Your task to perform on an android device: delete browsing data in the chrome app Image 0: 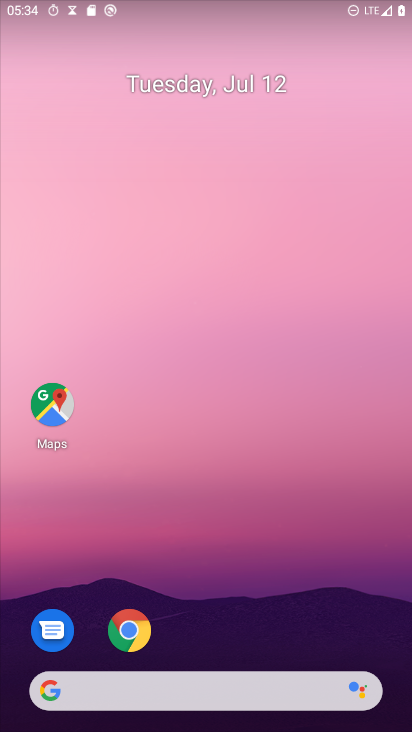
Step 0: drag from (319, 699) to (294, 31)
Your task to perform on an android device: delete browsing data in the chrome app Image 1: 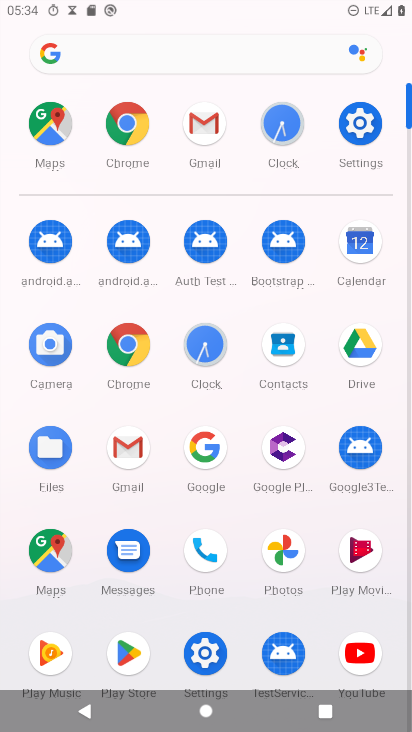
Step 1: click (127, 347)
Your task to perform on an android device: delete browsing data in the chrome app Image 2: 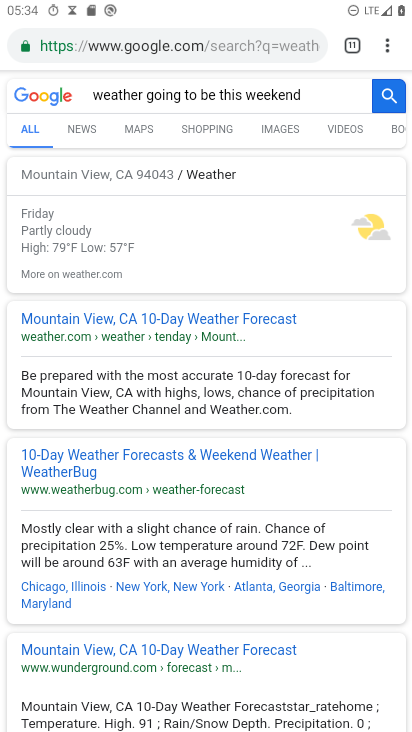
Step 2: drag from (391, 43) to (283, 503)
Your task to perform on an android device: delete browsing data in the chrome app Image 3: 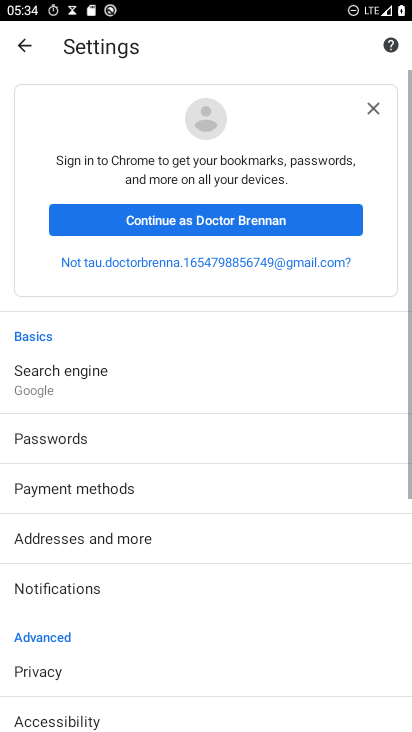
Step 3: drag from (351, 486) to (318, 93)
Your task to perform on an android device: delete browsing data in the chrome app Image 4: 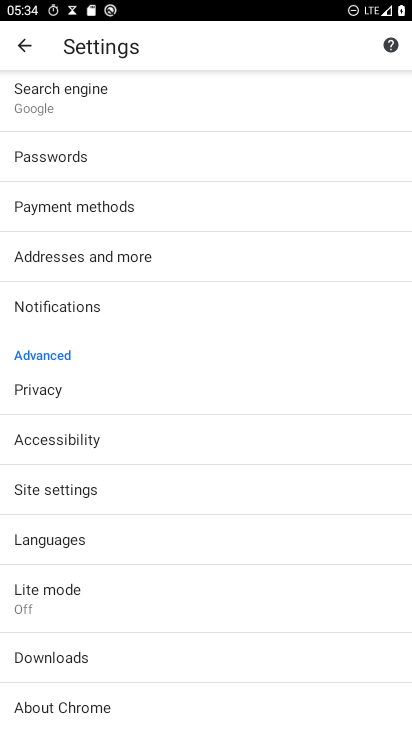
Step 4: click (77, 365)
Your task to perform on an android device: delete browsing data in the chrome app Image 5: 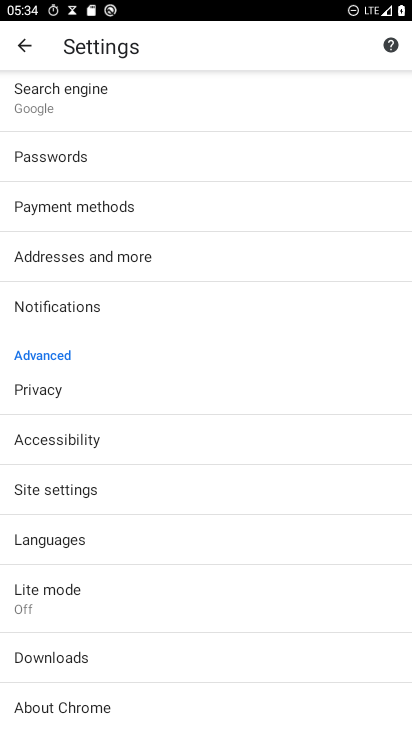
Step 5: click (58, 403)
Your task to perform on an android device: delete browsing data in the chrome app Image 6: 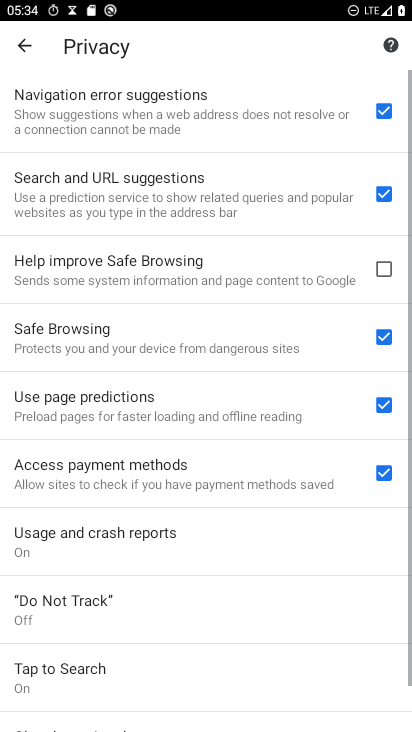
Step 6: drag from (257, 689) to (243, 143)
Your task to perform on an android device: delete browsing data in the chrome app Image 7: 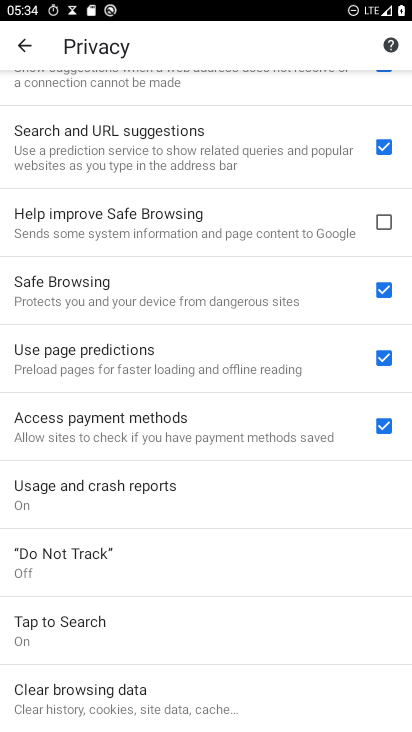
Step 7: click (83, 683)
Your task to perform on an android device: delete browsing data in the chrome app Image 8: 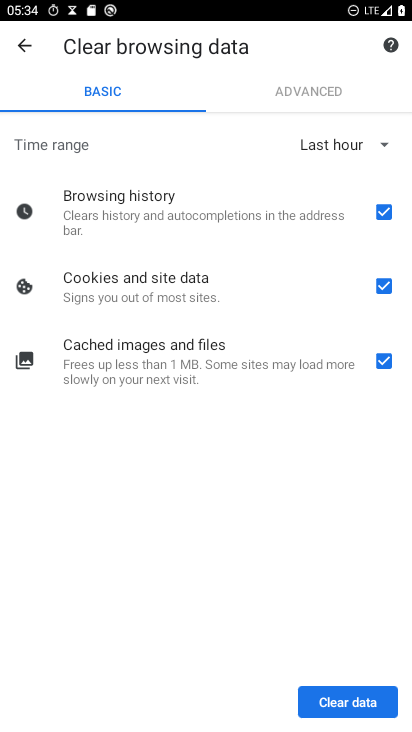
Step 8: click (354, 700)
Your task to perform on an android device: delete browsing data in the chrome app Image 9: 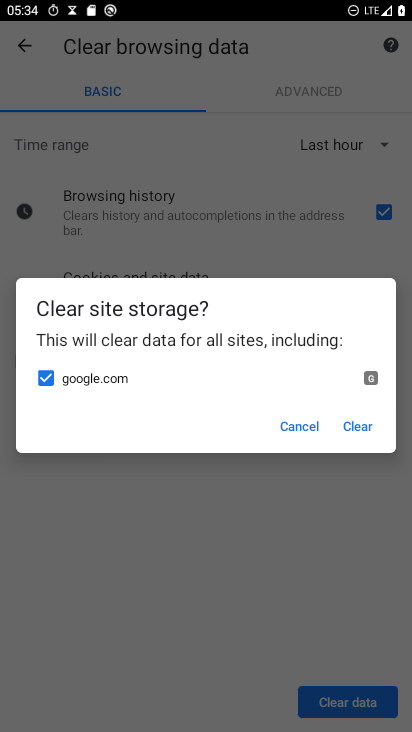
Step 9: click (362, 420)
Your task to perform on an android device: delete browsing data in the chrome app Image 10: 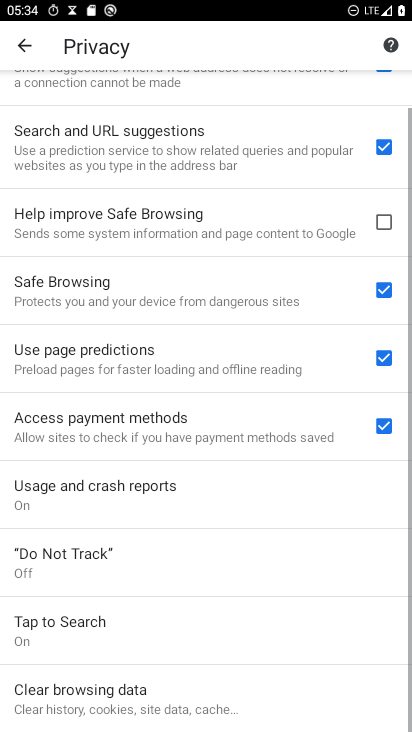
Step 10: task complete